Your task to perform on an android device: open app "PUBG MOBILE" (install if not already installed) Image 0: 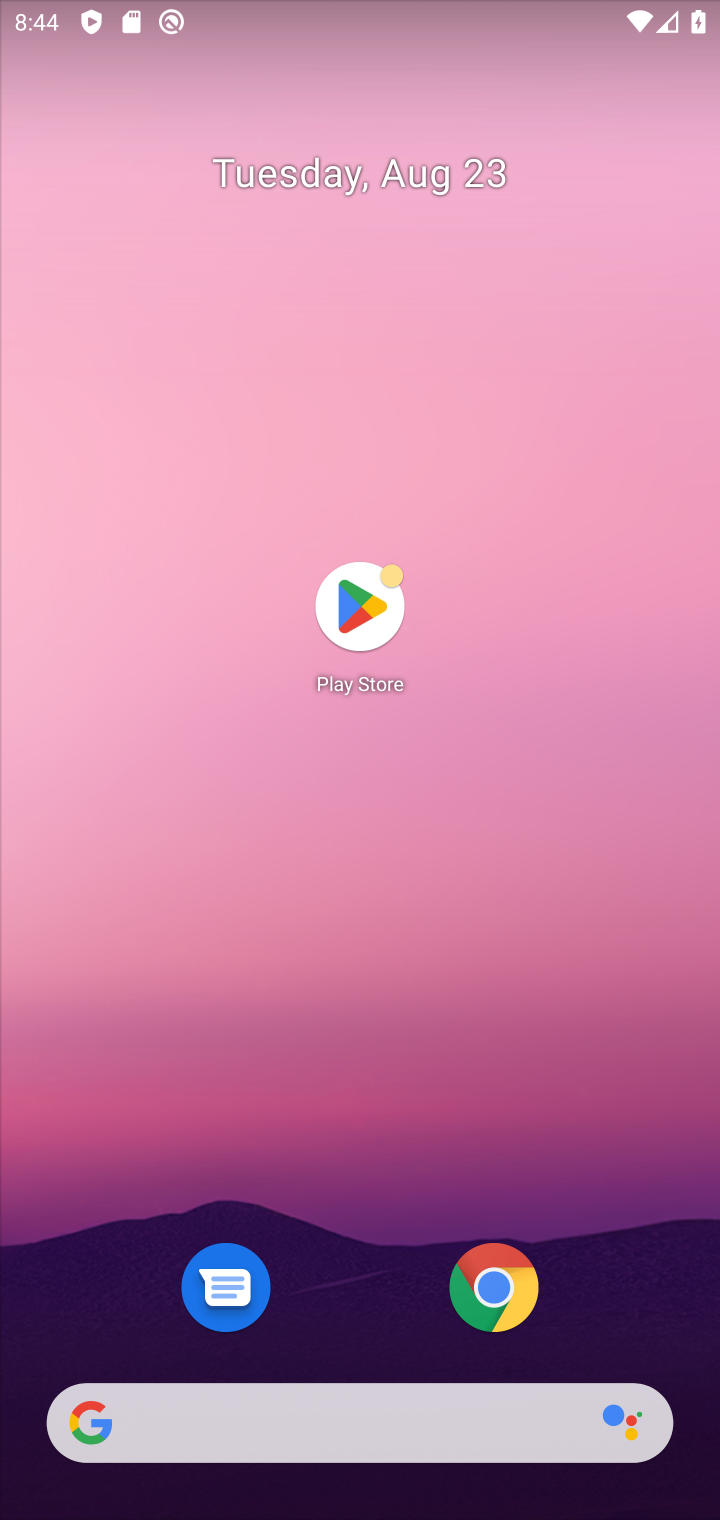
Step 0: press home button
Your task to perform on an android device: open app "PUBG MOBILE" (install if not already installed) Image 1: 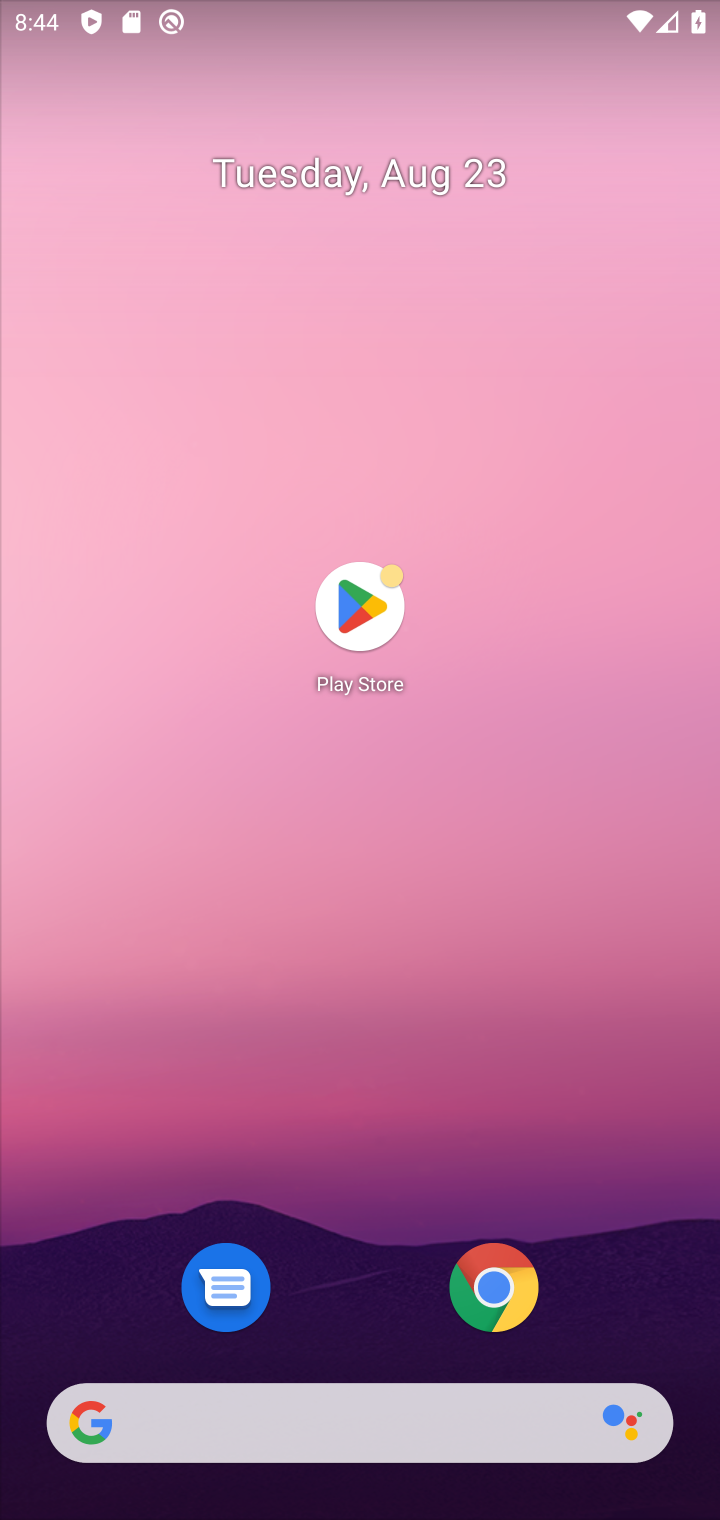
Step 1: click (358, 614)
Your task to perform on an android device: open app "PUBG MOBILE" (install if not already installed) Image 2: 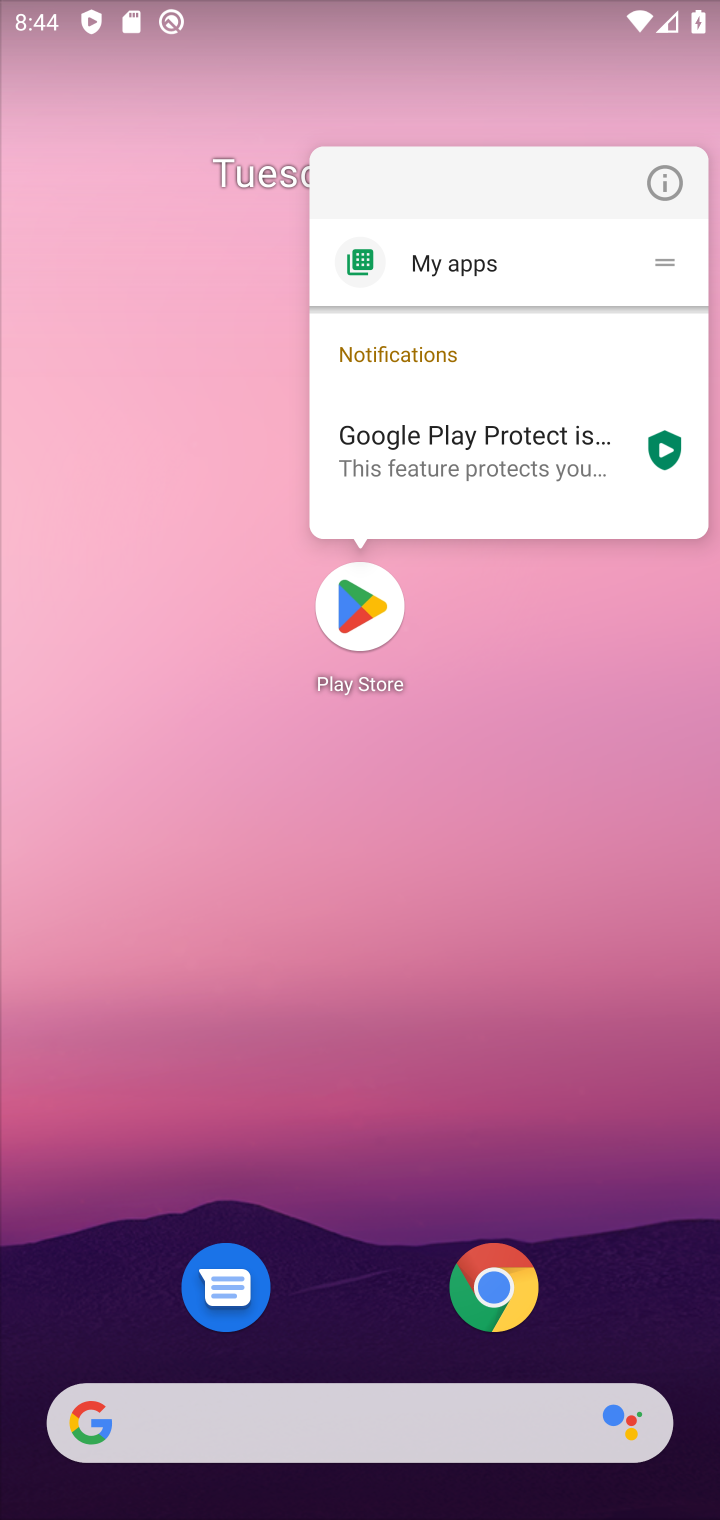
Step 2: click (358, 619)
Your task to perform on an android device: open app "PUBG MOBILE" (install if not already installed) Image 3: 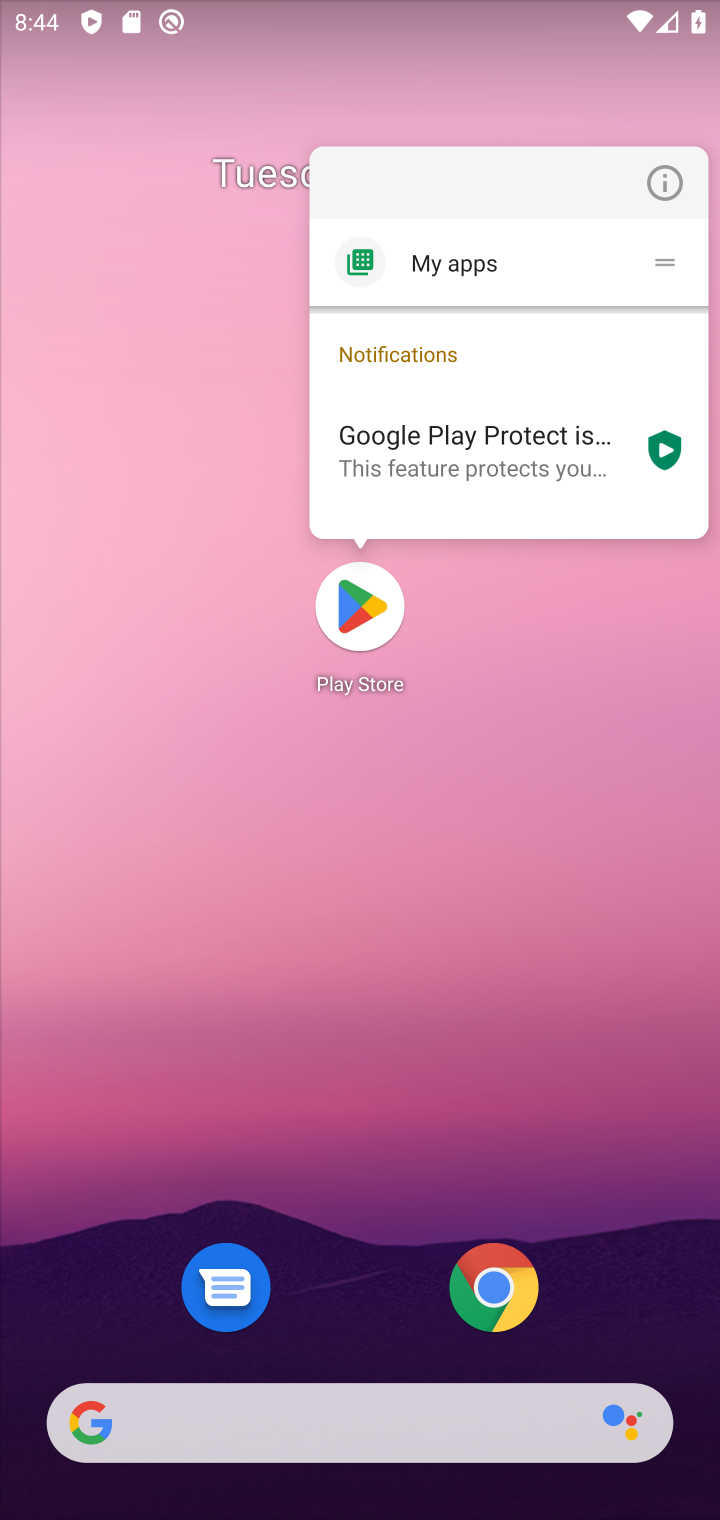
Step 3: click (358, 619)
Your task to perform on an android device: open app "PUBG MOBILE" (install if not already installed) Image 4: 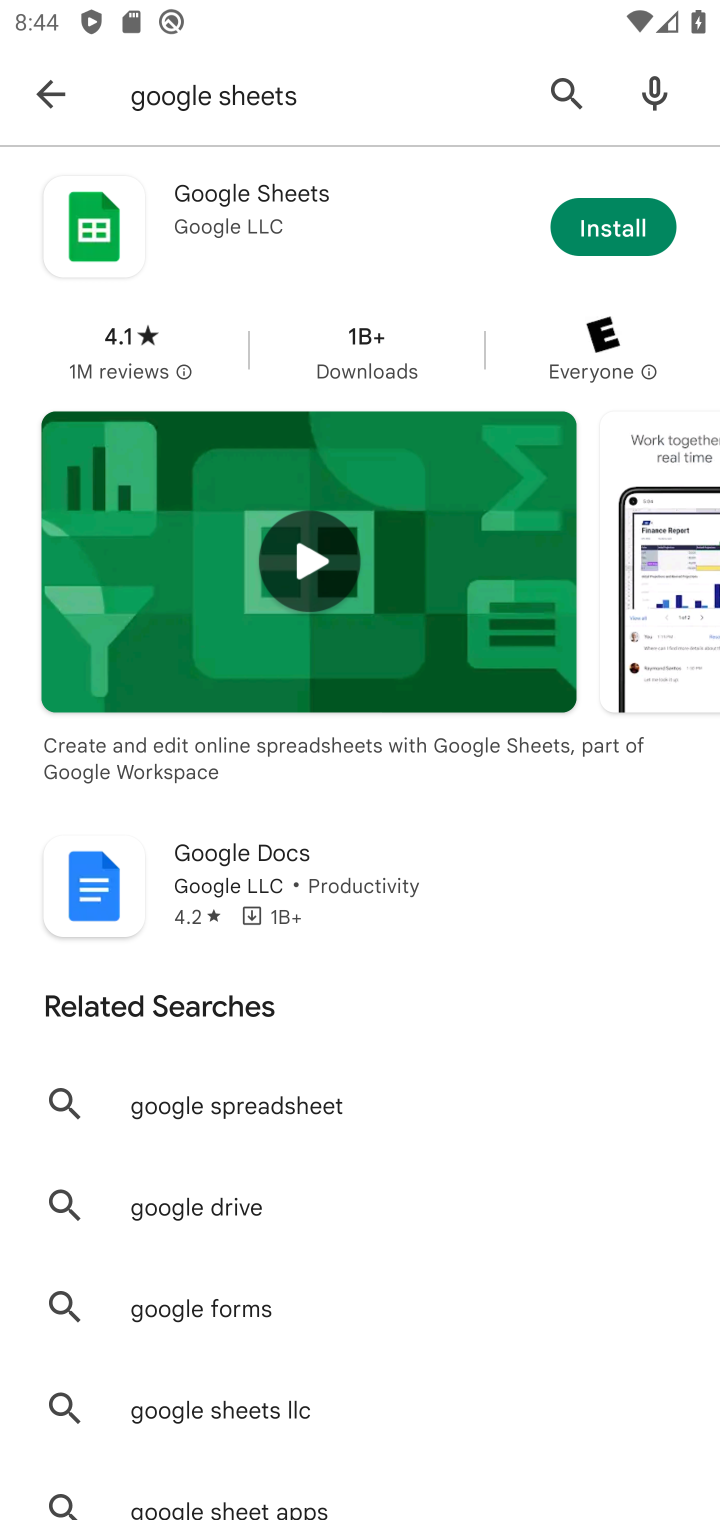
Step 4: click (562, 97)
Your task to perform on an android device: open app "PUBG MOBILE" (install if not already installed) Image 5: 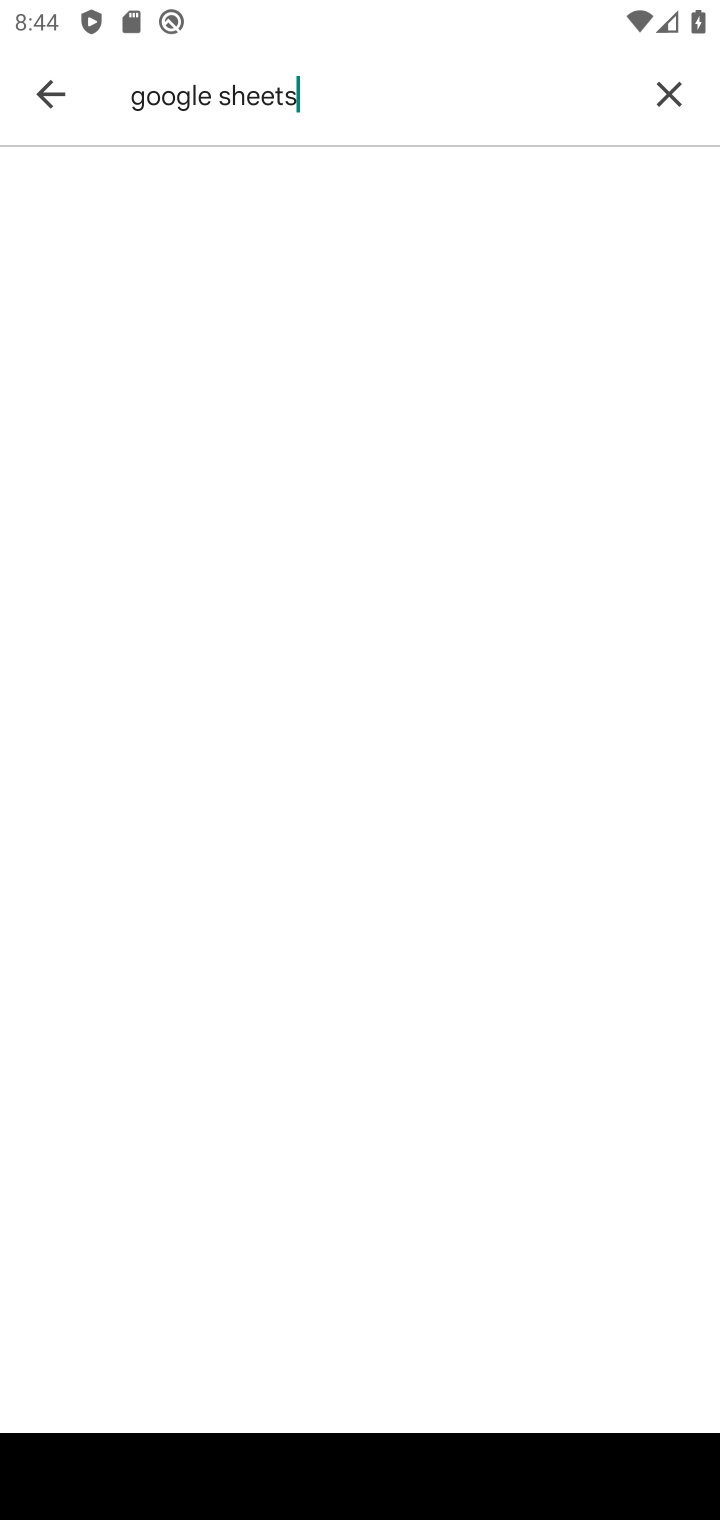
Step 5: click (658, 105)
Your task to perform on an android device: open app "PUBG MOBILE" (install if not already installed) Image 6: 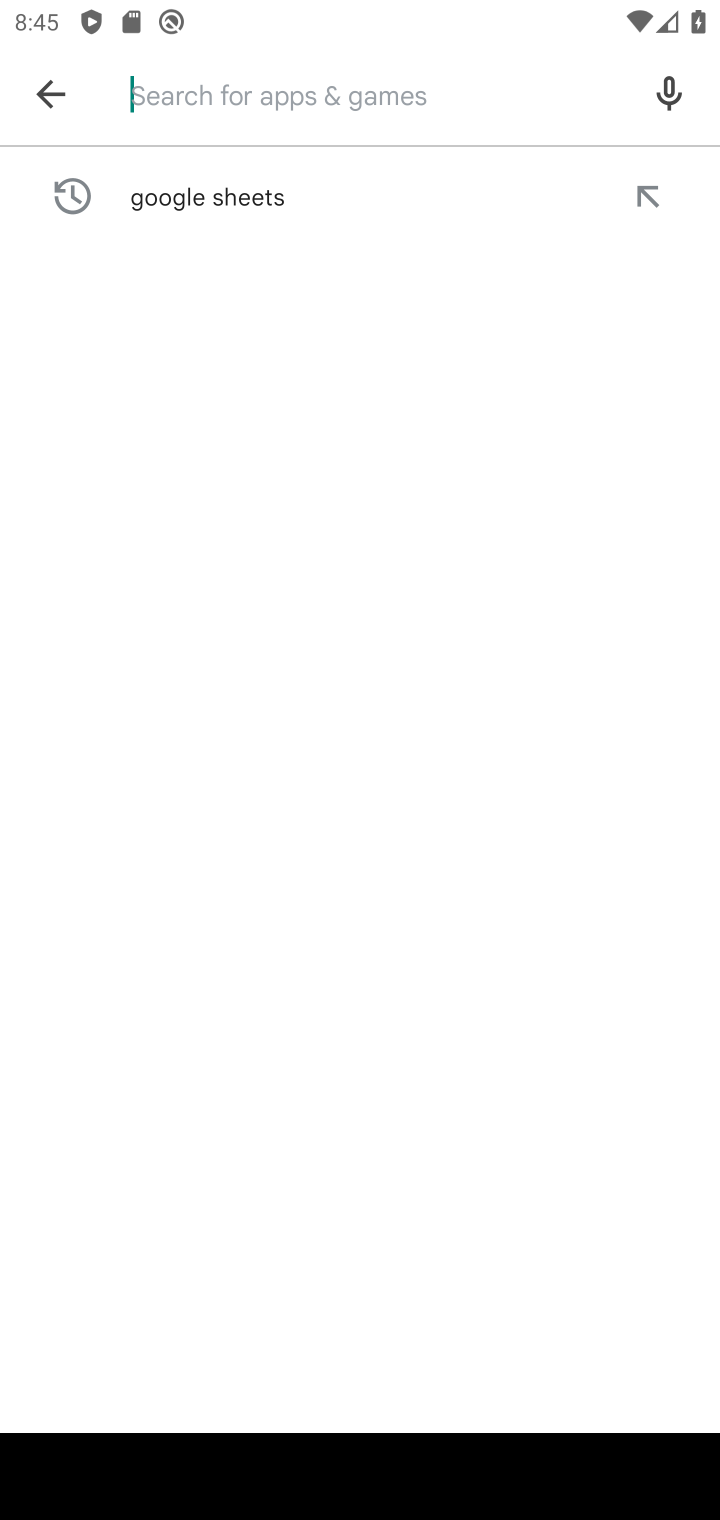
Step 6: type "PUBG MOBILE"
Your task to perform on an android device: open app "PUBG MOBILE" (install if not already installed) Image 7: 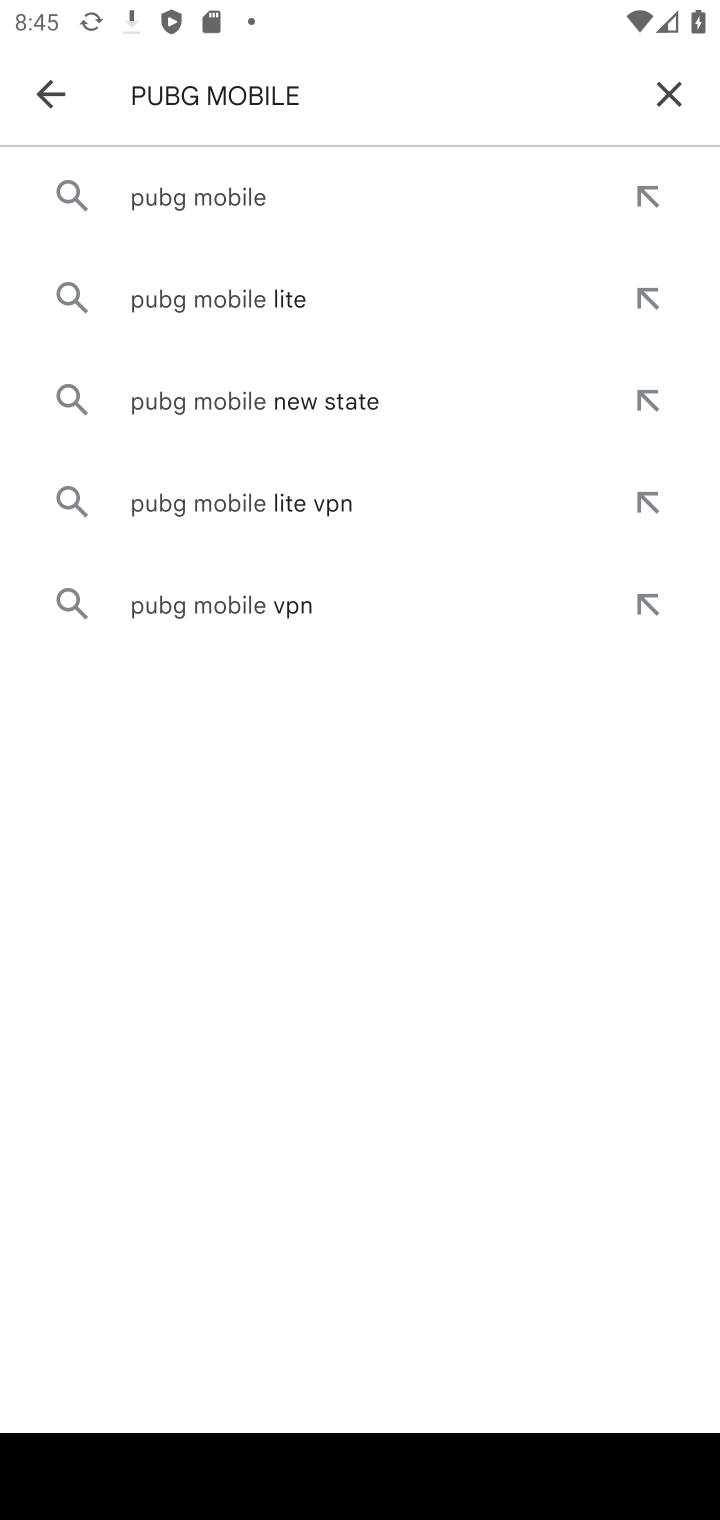
Step 7: click (221, 204)
Your task to perform on an android device: open app "PUBG MOBILE" (install if not already installed) Image 8: 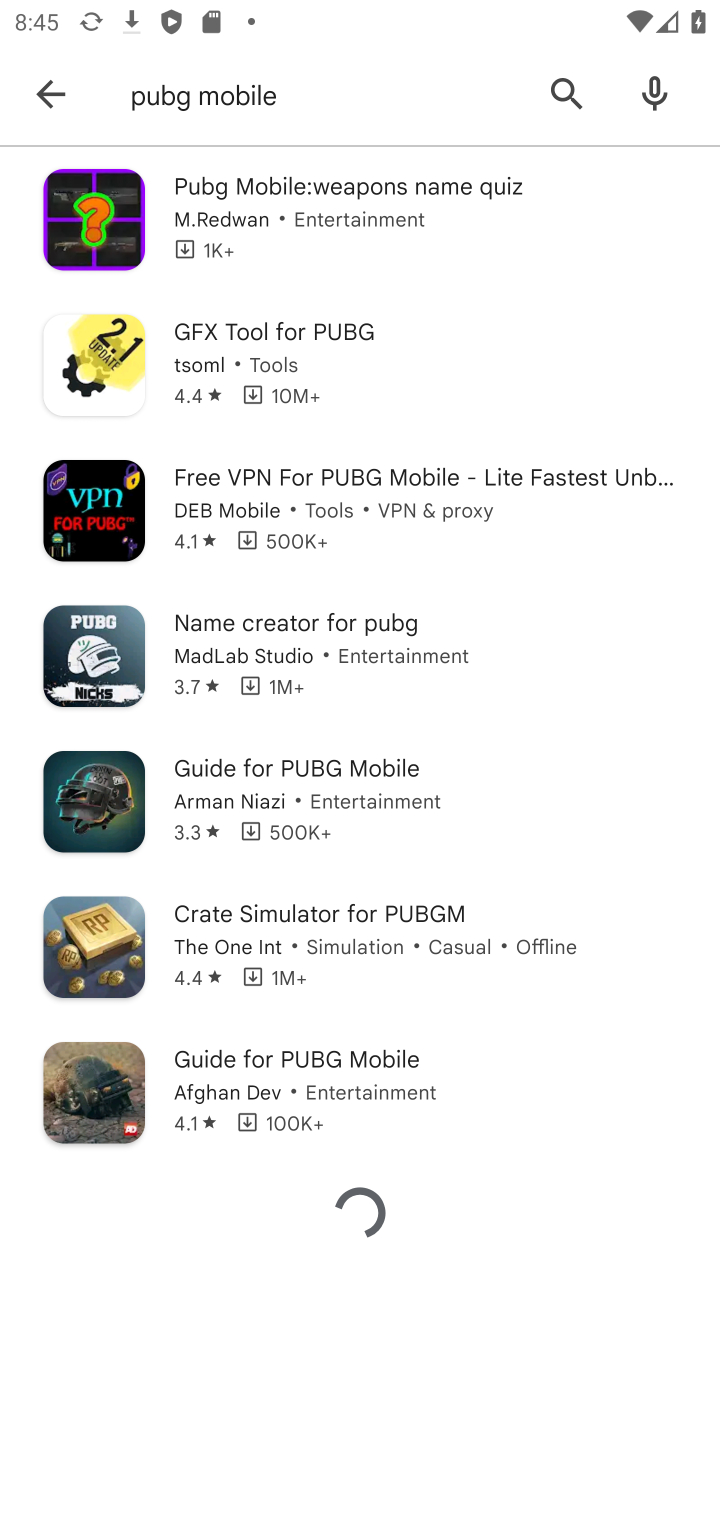
Step 8: click (227, 220)
Your task to perform on an android device: open app "PUBG MOBILE" (install if not already installed) Image 9: 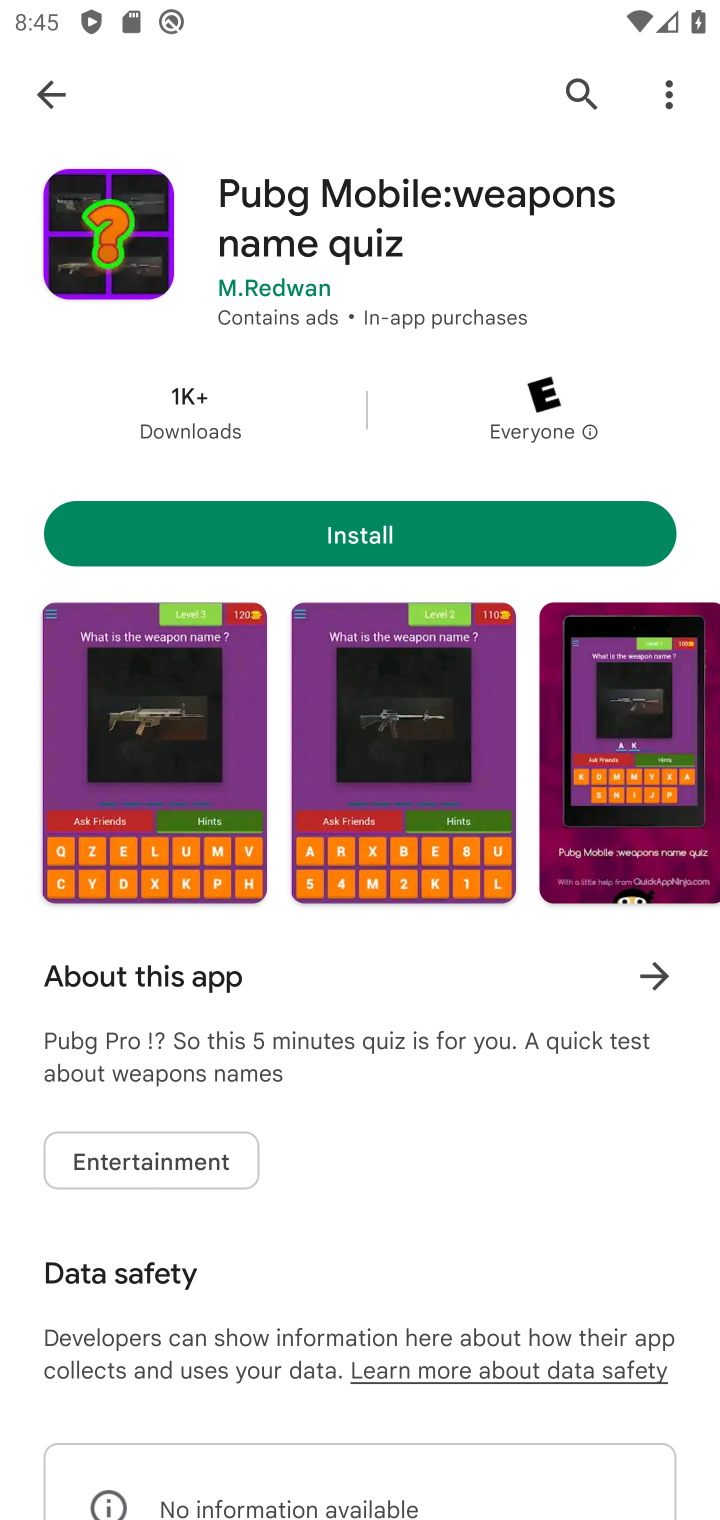
Step 9: click (363, 529)
Your task to perform on an android device: open app "PUBG MOBILE" (install if not already installed) Image 10: 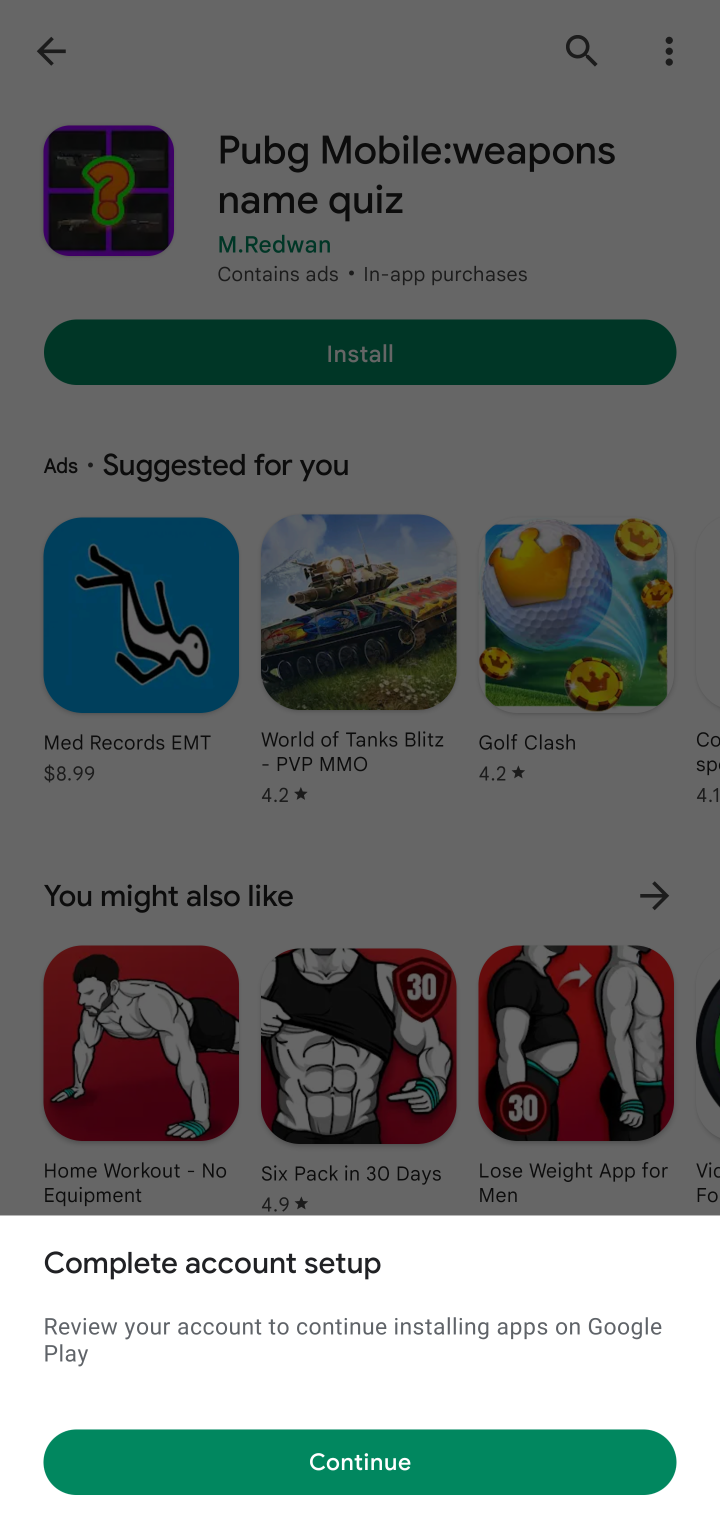
Step 10: click (399, 1483)
Your task to perform on an android device: open app "PUBG MOBILE" (install if not already installed) Image 11: 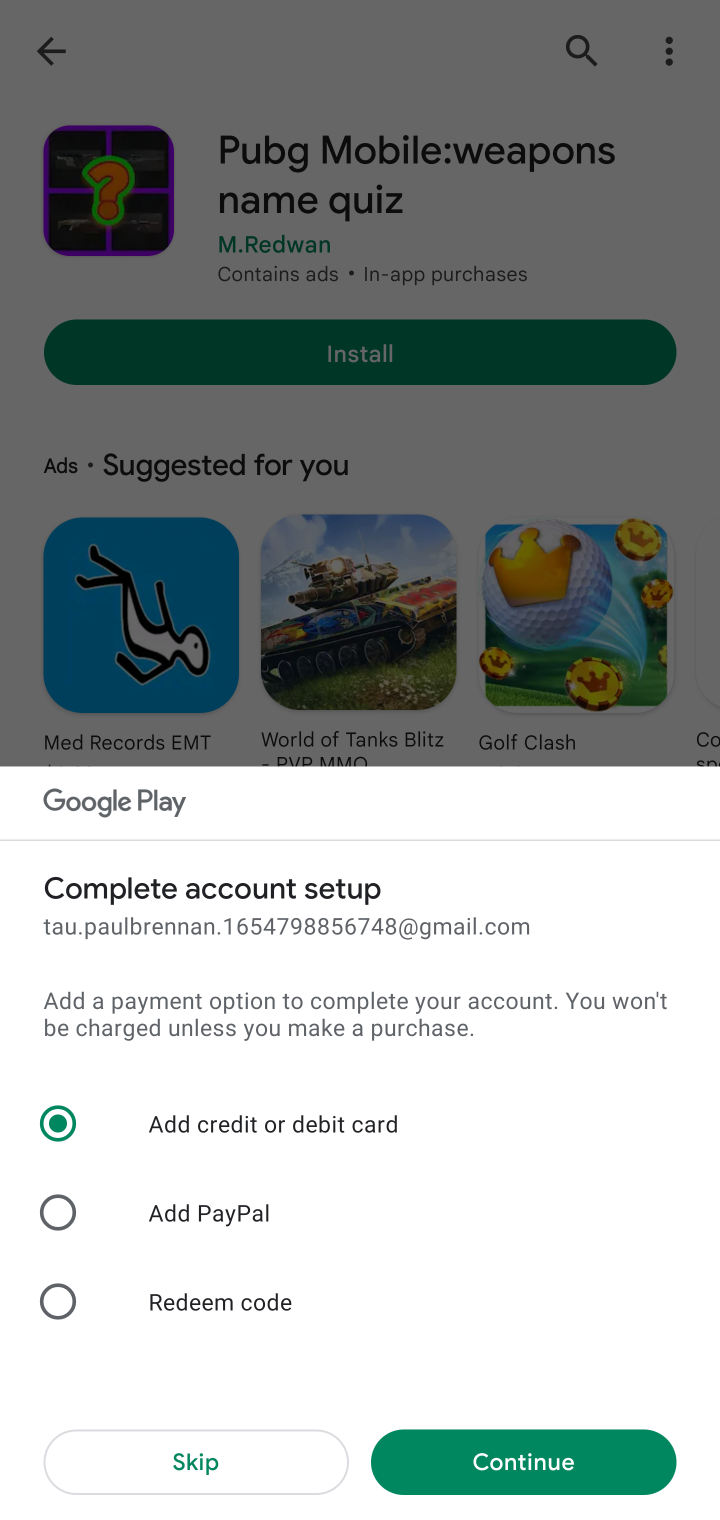
Step 11: click (259, 1453)
Your task to perform on an android device: open app "PUBG MOBILE" (install if not already installed) Image 12: 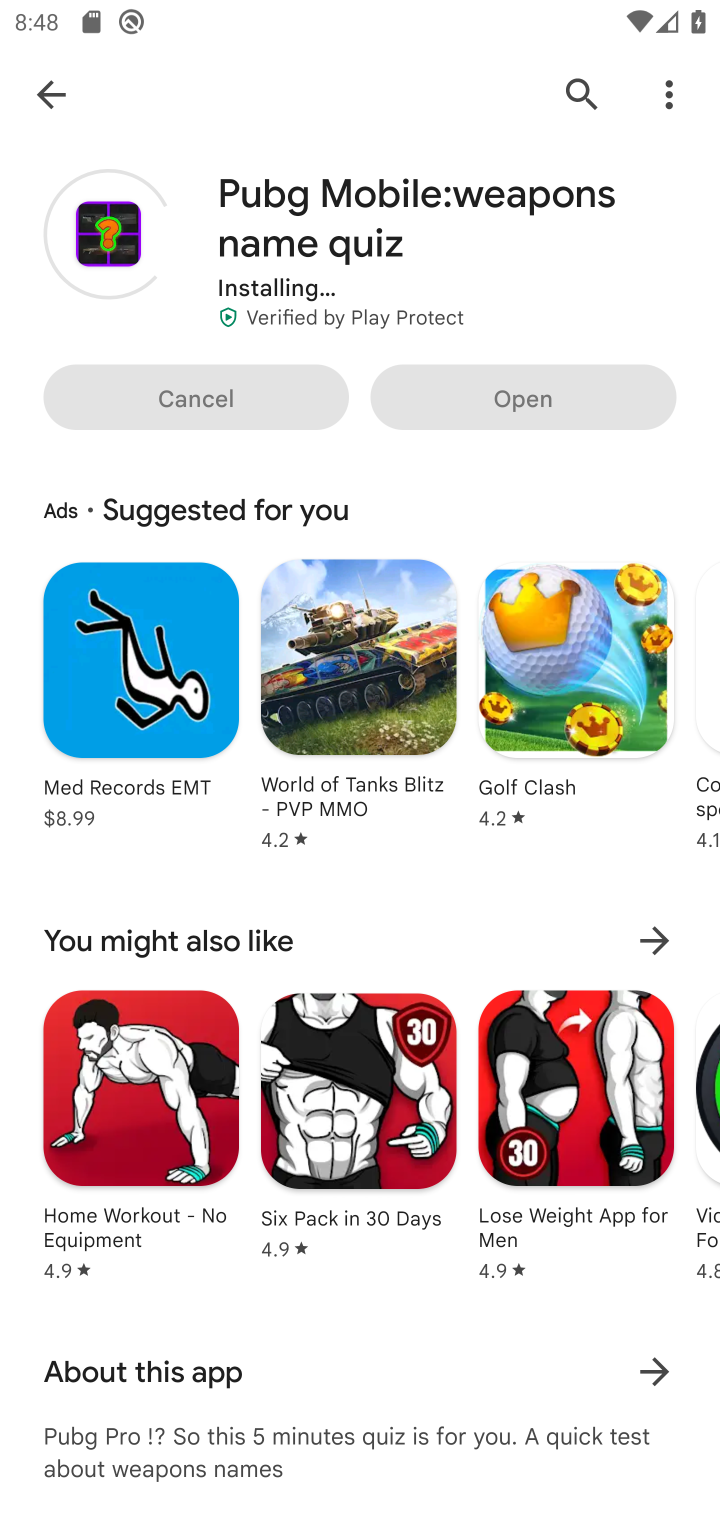
Step 12: press home button
Your task to perform on an android device: open app "PUBG MOBILE" (install if not already installed) Image 13: 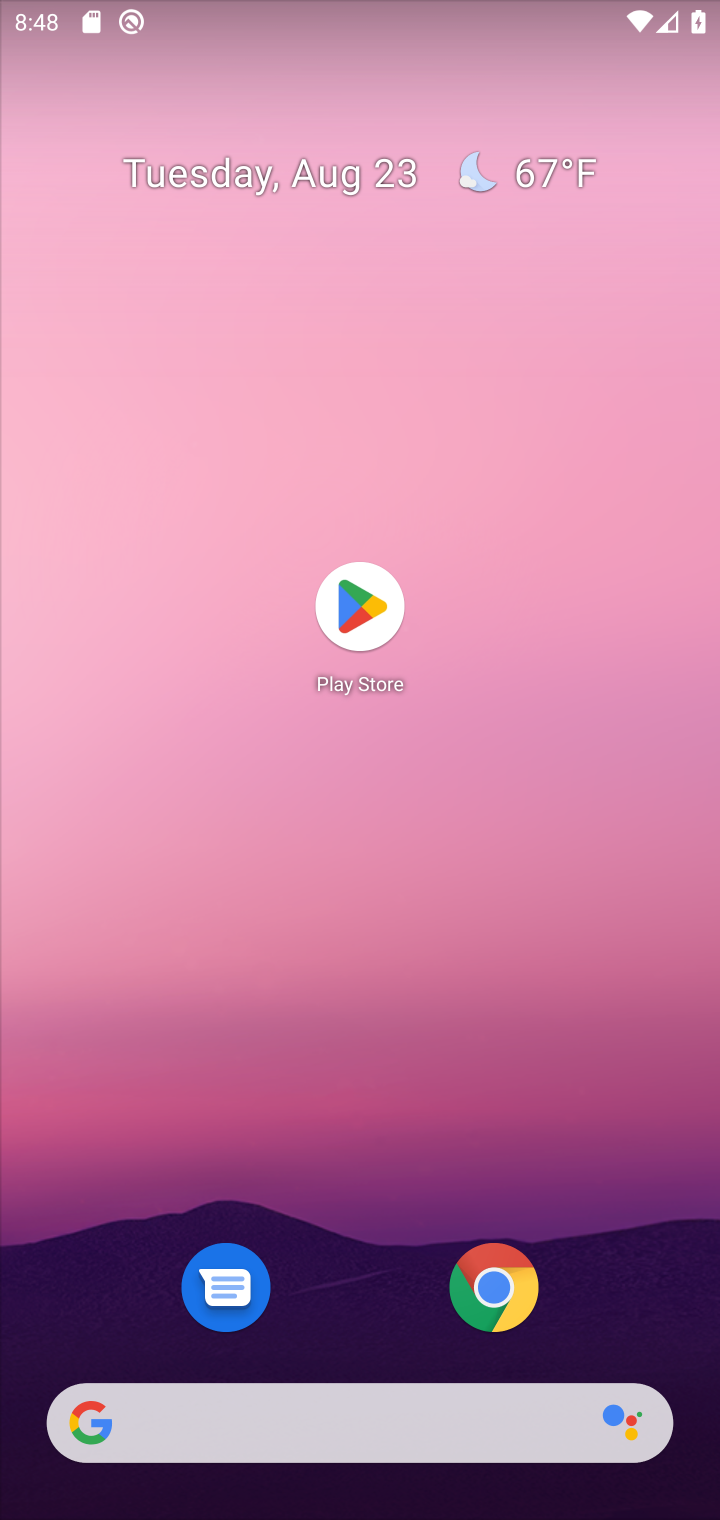
Step 13: click (355, 617)
Your task to perform on an android device: open app "PUBG MOBILE" (install if not already installed) Image 14: 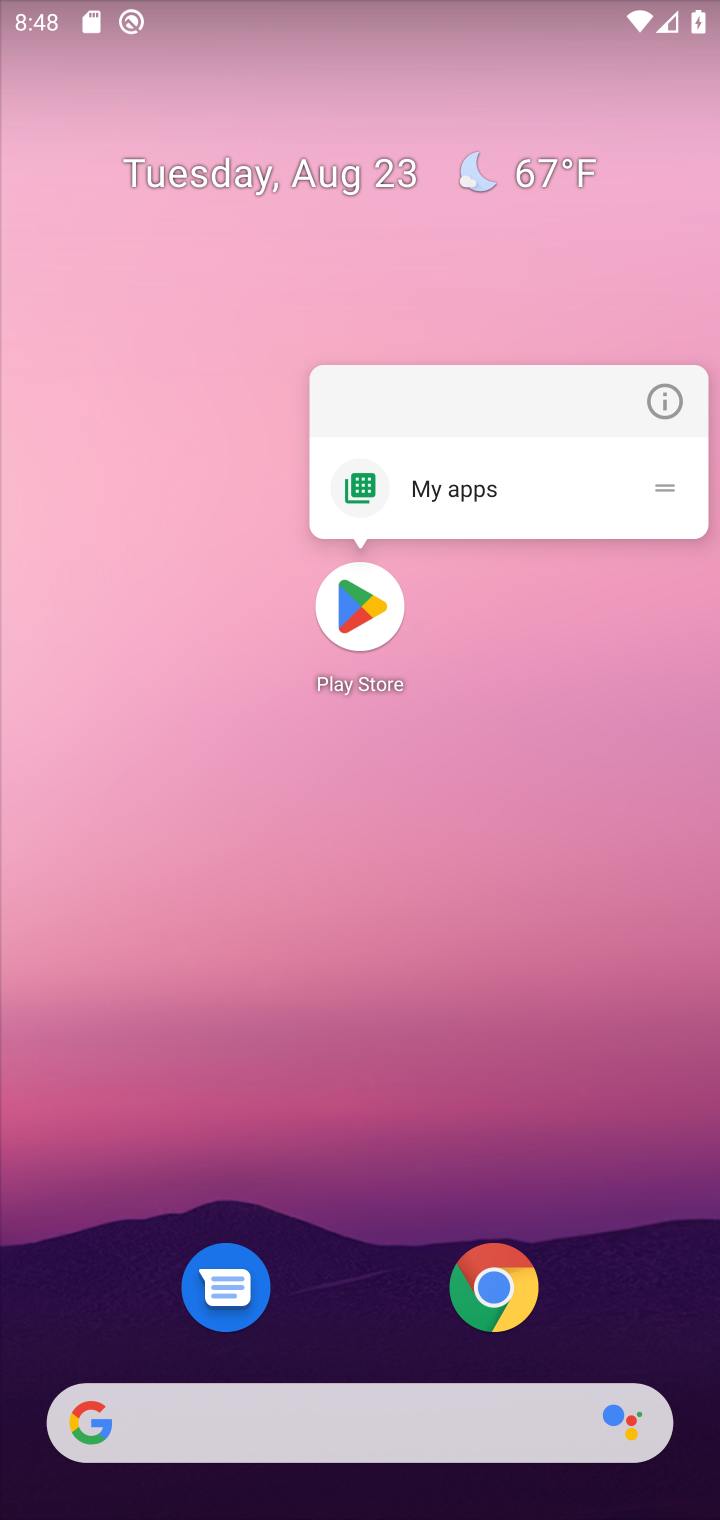
Step 14: click (355, 620)
Your task to perform on an android device: open app "PUBG MOBILE" (install if not already installed) Image 15: 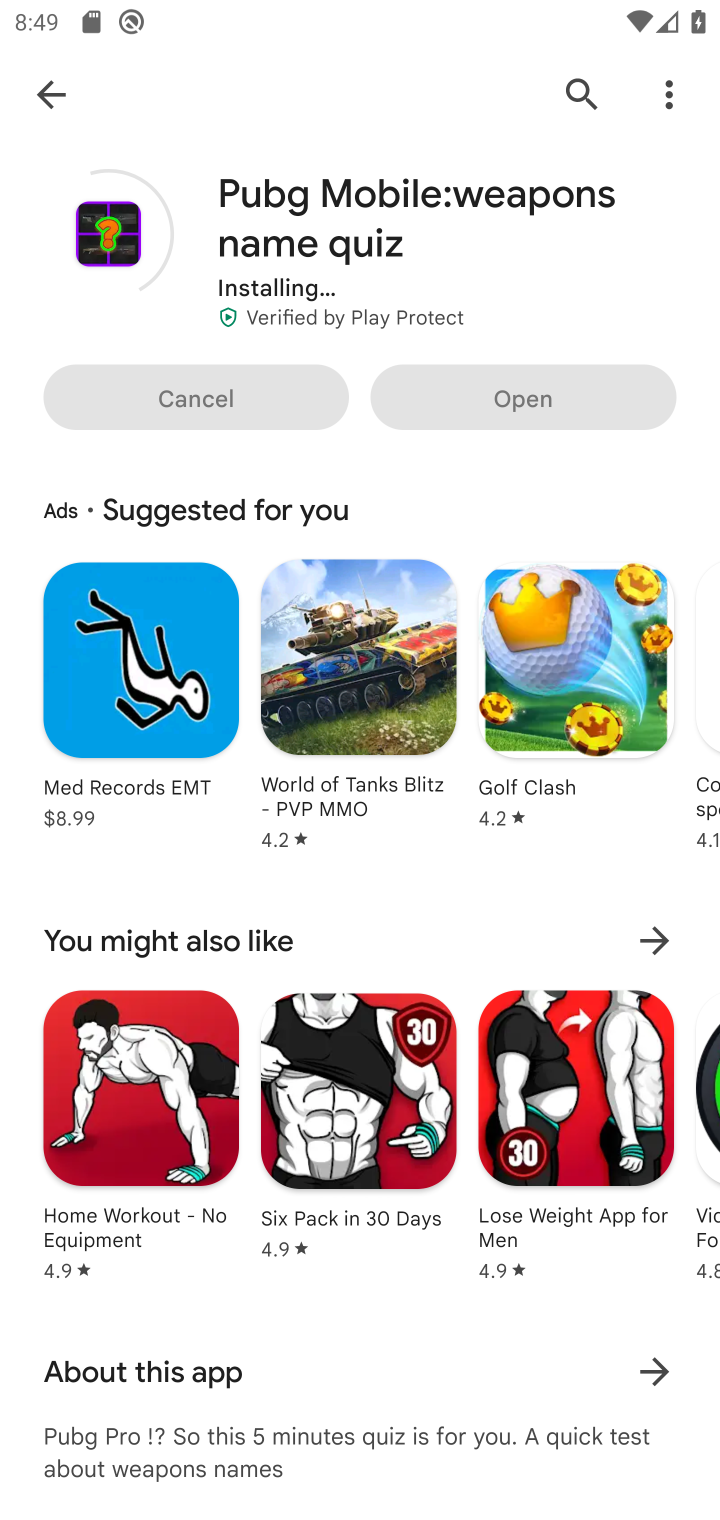
Step 15: click (577, 84)
Your task to perform on an android device: open app "PUBG MOBILE" (install if not already installed) Image 16: 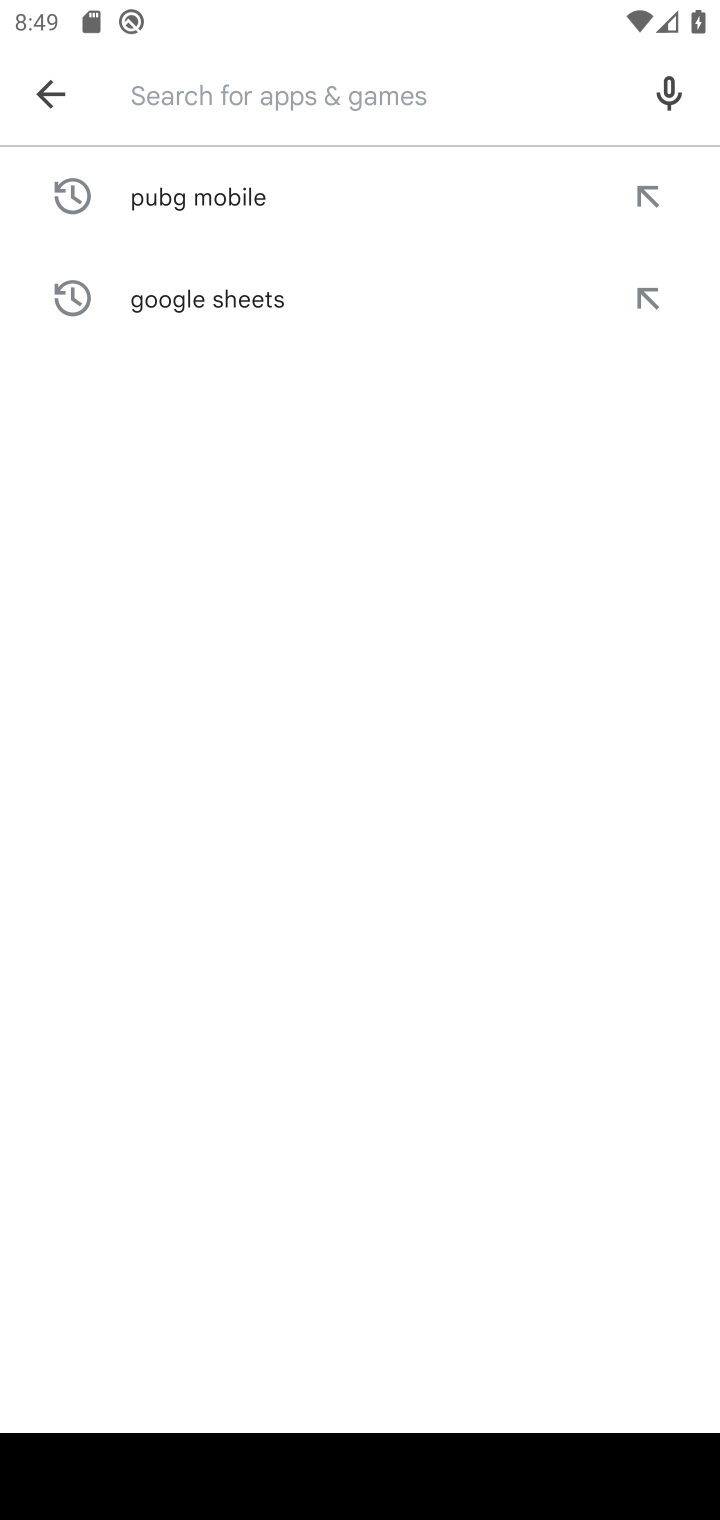
Step 16: click (200, 190)
Your task to perform on an android device: open app "PUBG MOBILE" (install if not already installed) Image 17: 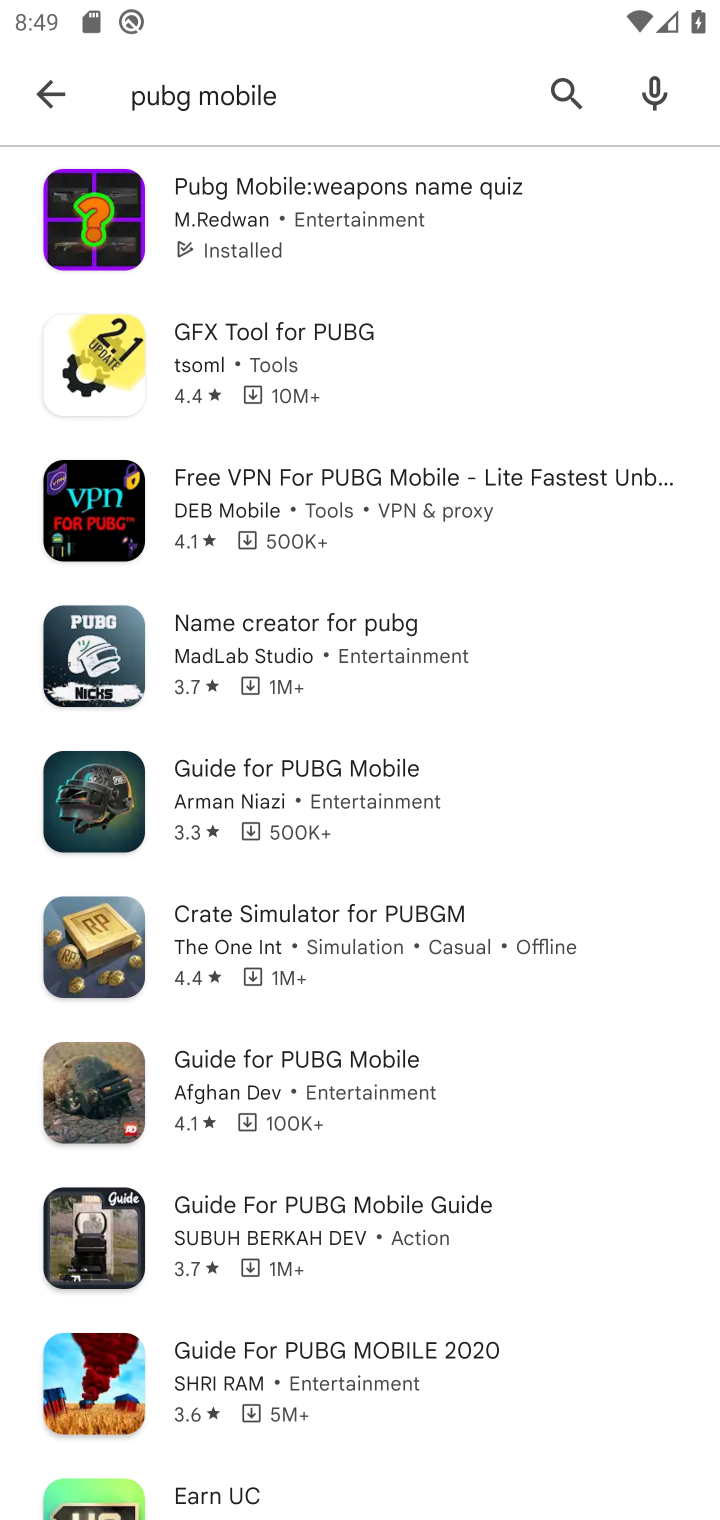
Step 17: click (285, 229)
Your task to perform on an android device: open app "PUBG MOBILE" (install if not already installed) Image 18: 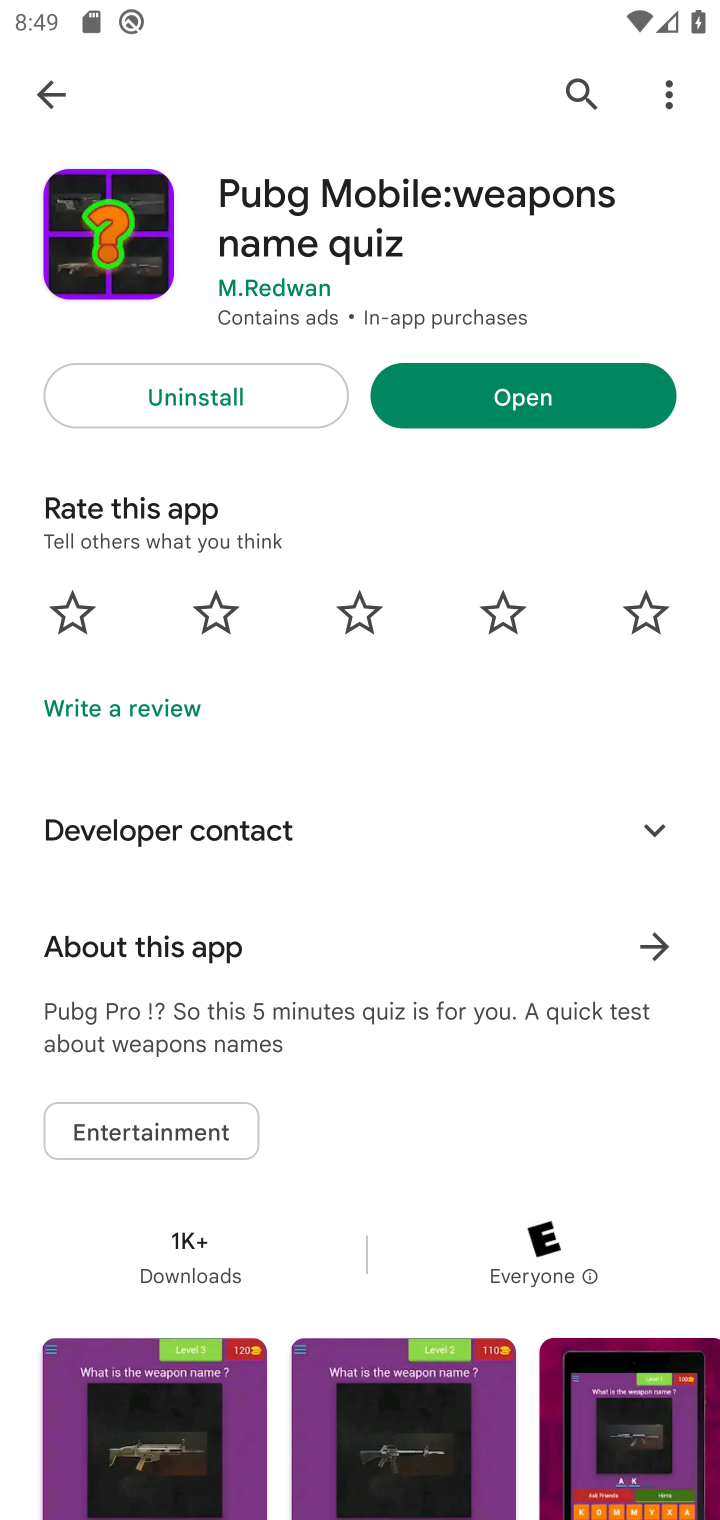
Step 18: task complete